Your task to perform on an android device: Show me the alarms in the clock app Image 0: 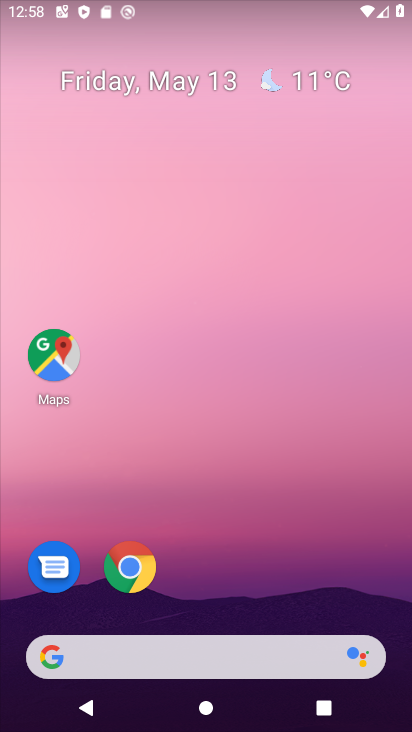
Step 0: drag from (181, 634) to (258, 129)
Your task to perform on an android device: Show me the alarms in the clock app Image 1: 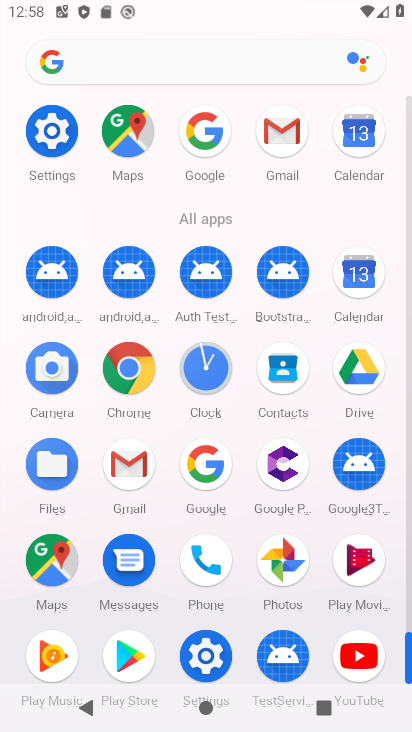
Step 1: click (209, 362)
Your task to perform on an android device: Show me the alarms in the clock app Image 2: 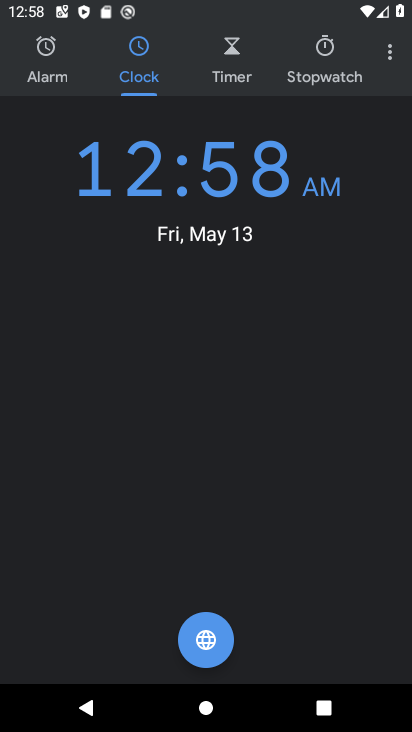
Step 2: click (69, 48)
Your task to perform on an android device: Show me the alarms in the clock app Image 3: 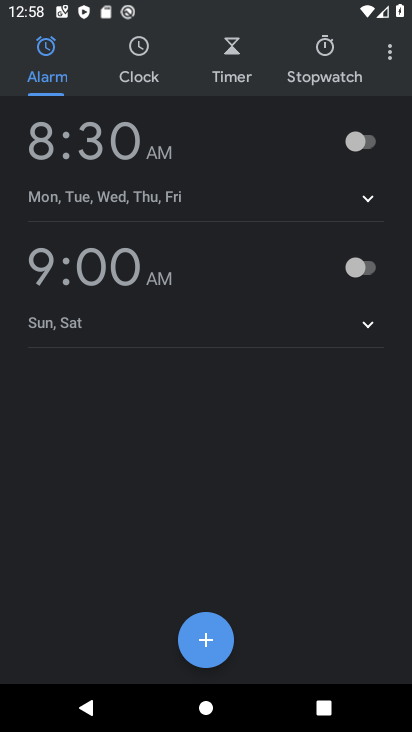
Step 3: task complete